Your task to perform on an android device: Open calendar and show me the fourth week of next month Image 0: 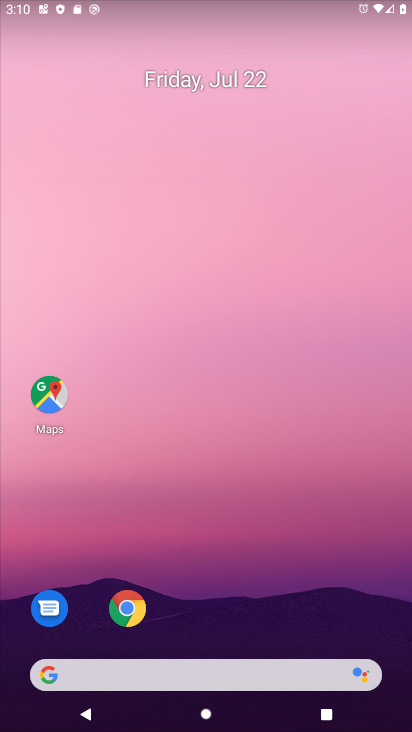
Step 0: drag from (297, 606) to (274, 0)
Your task to perform on an android device: Open calendar and show me the fourth week of next month Image 1: 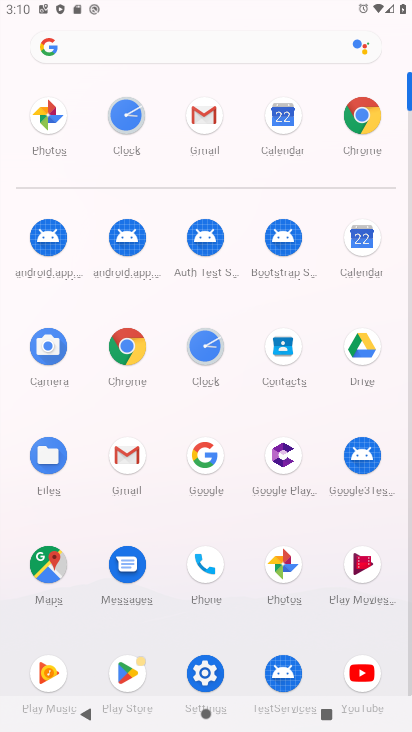
Step 1: click (367, 230)
Your task to perform on an android device: Open calendar and show me the fourth week of next month Image 2: 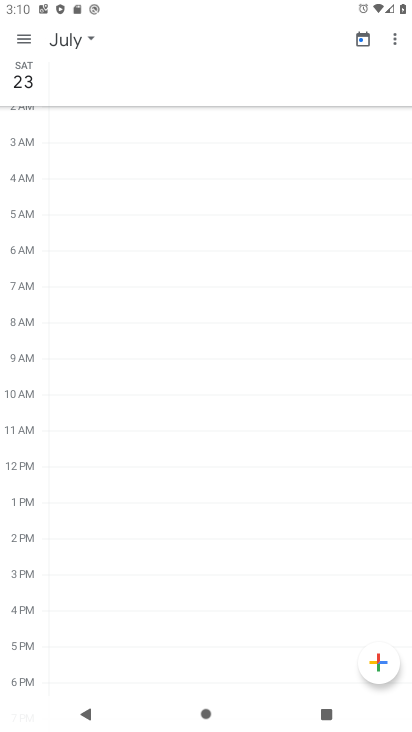
Step 2: click (22, 42)
Your task to perform on an android device: Open calendar and show me the fourth week of next month Image 3: 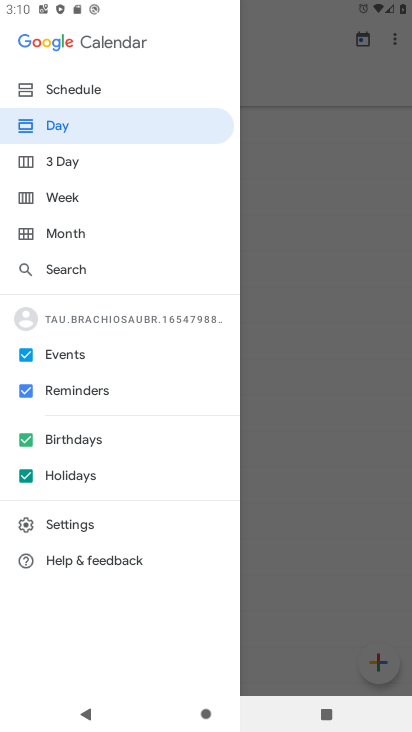
Step 3: click (102, 193)
Your task to perform on an android device: Open calendar and show me the fourth week of next month Image 4: 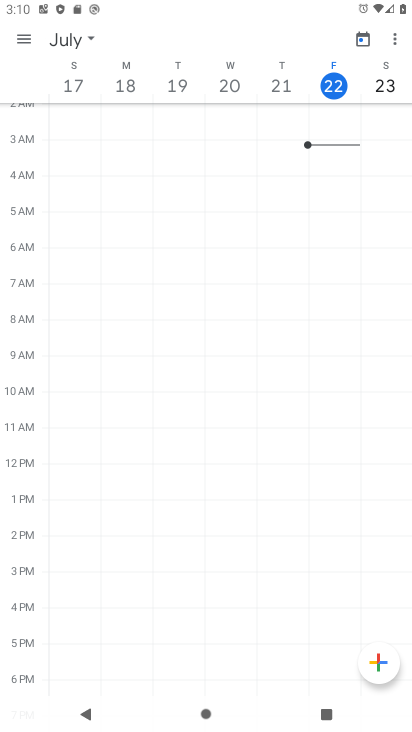
Step 4: click (87, 39)
Your task to perform on an android device: Open calendar and show me the fourth week of next month Image 5: 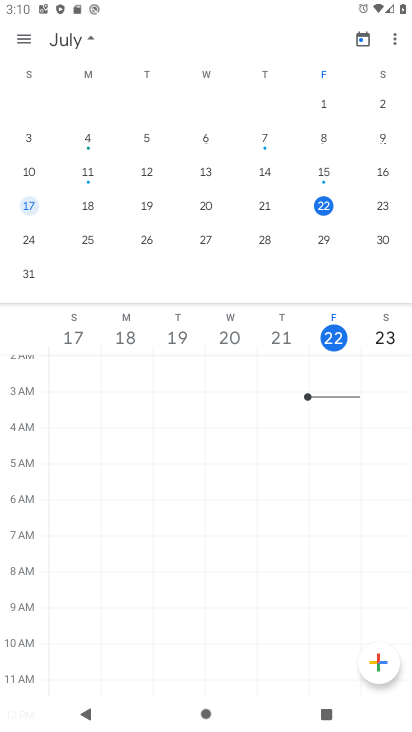
Step 5: drag from (391, 235) to (3, 201)
Your task to perform on an android device: Open calendar and show me the fourth week of next month Image 6: 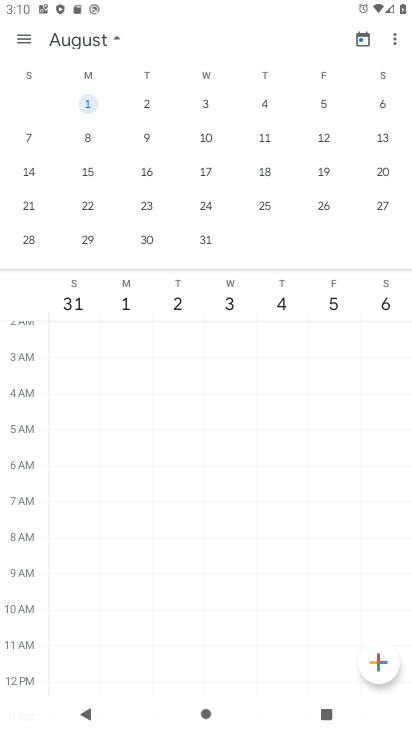
Step 6: click (91, 202)
Your task to perform on an android device: Open calendar and show me the fourth week of next month Image 7: 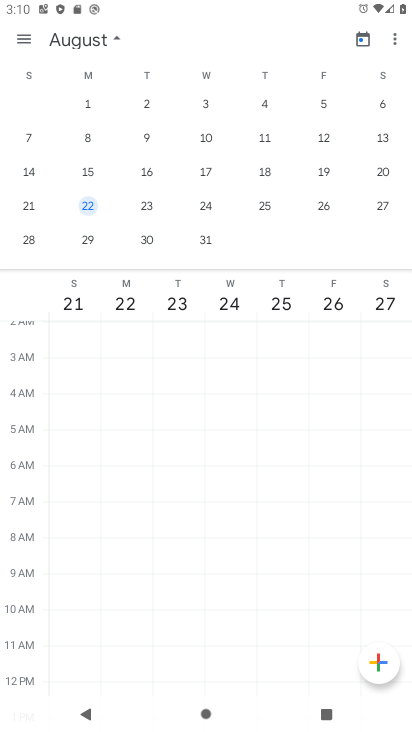
Step 7: task complete